Your task to perform on an android device: What's the weather today? Image 0: 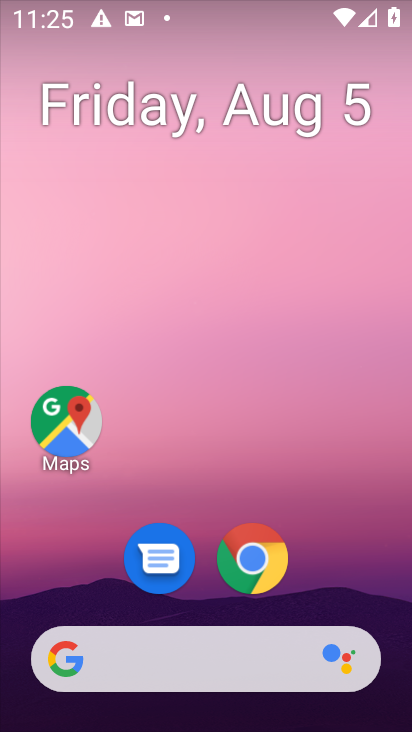
Step 0: click (230, 645)
Your task to perform on an android device: What's the weather today? Image 1: 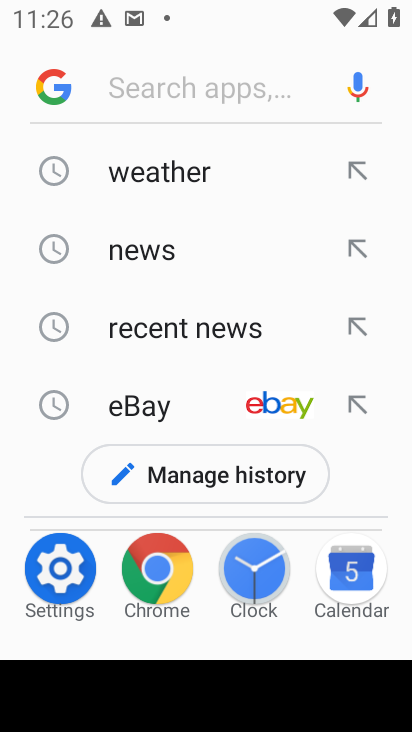
Step 1: click (189, 169)
Your task to perform on an android device: What's the weather today? Image 2: 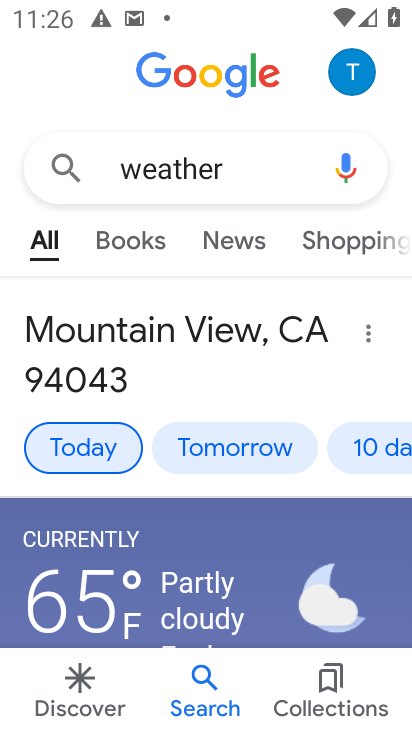
Step 2: task complete